Your task to perform on an android device: toggle data saver in the chrome app Image 0: 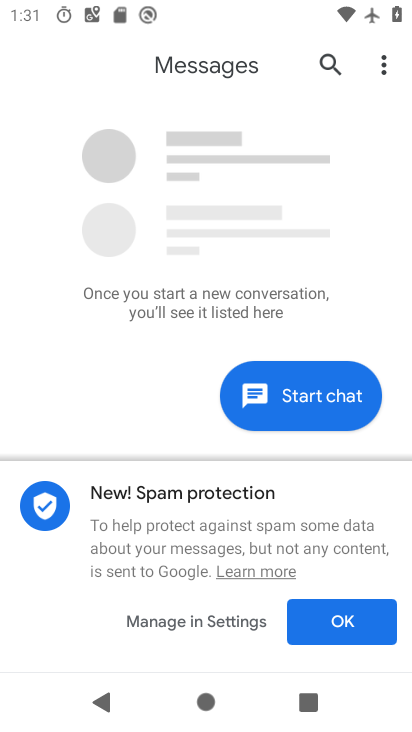
Step 0: press home button
Your task to perform on an android device: toggle data saver in the chrome app Image 1: 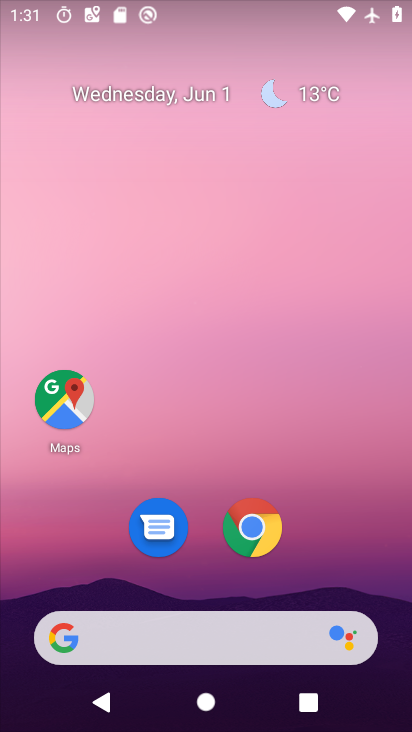
Step 1: click (258, 523)
Your task to perform on an android device: toggle data saver in the chrome app Image 2: 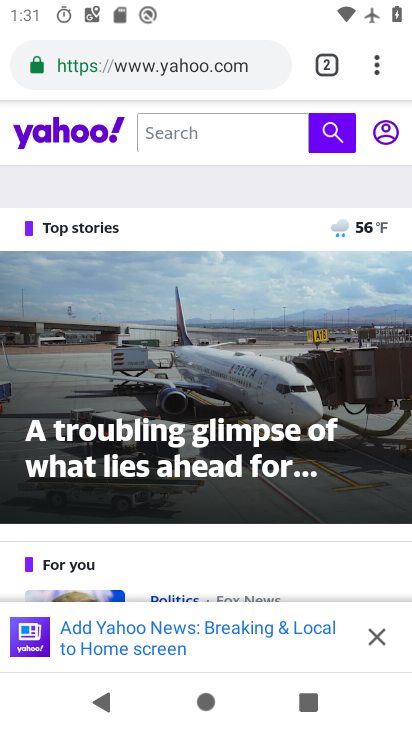
Step 2: click (377, 68)
Your task to perform on an android device: toggle data saver in the chrome app Image 3: 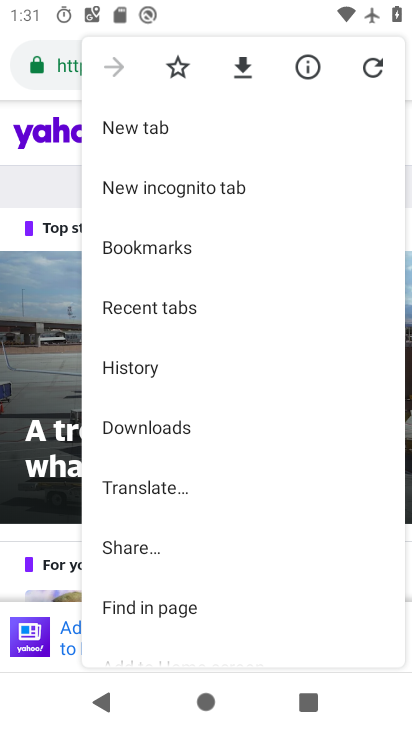
Step 3: drag from (281, 592) to (243, 208)
Your task to perform on an android device: toggle data saver in the chrome app Image 4: 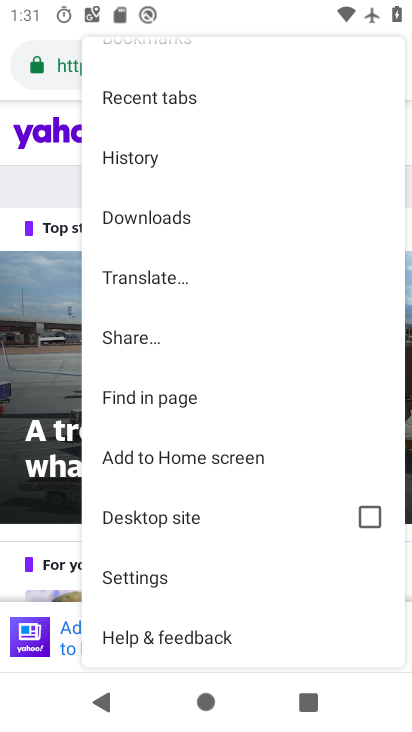
Step 4: click (148, 578)
Your task to perform on an android device: toggle data saver in the chrome app Image 5: 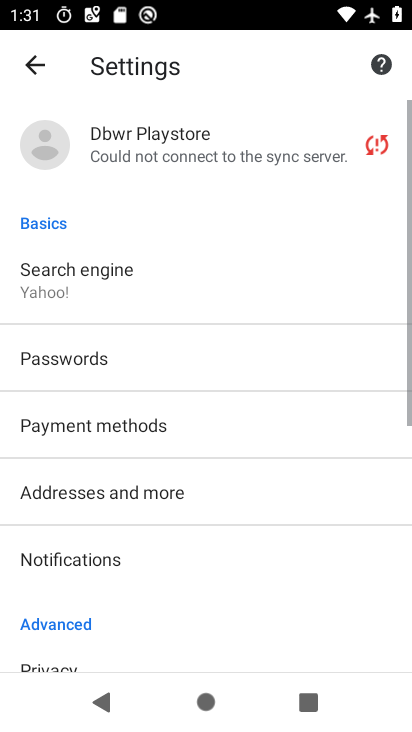
Step 5: drag from (148, 578) to (135, 152)
Your task to perform on an android device: toggle data saver in the chrome app Image 6: 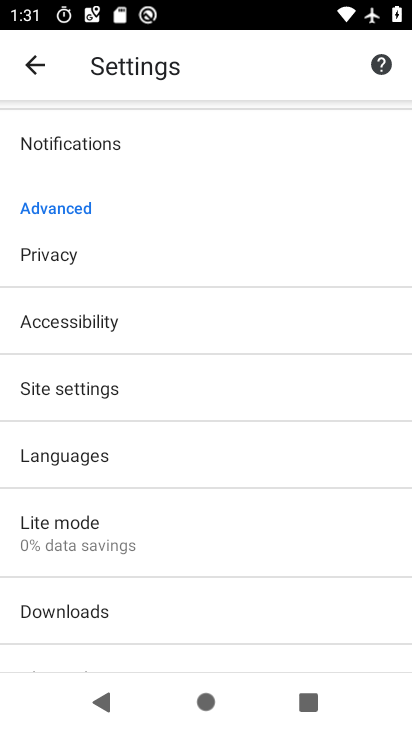
Step 6: click (71, 536)
Your task to perform on an android device: toggle data saver in the chrome app Image 7: 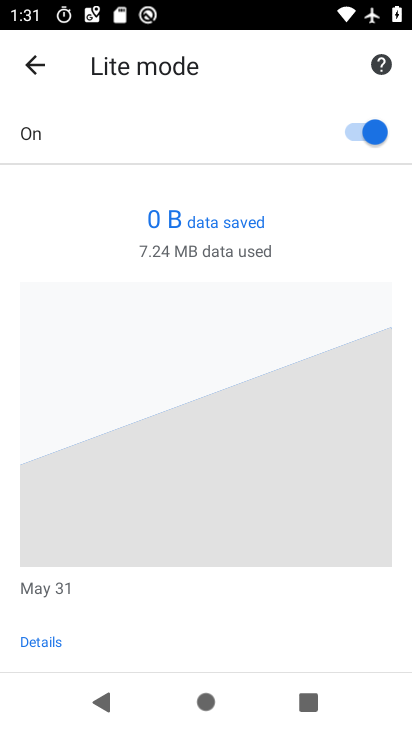
Step 7: click (367, 135)
Your task to perform on an android device: toggle data saver in the chrome app Image 8: 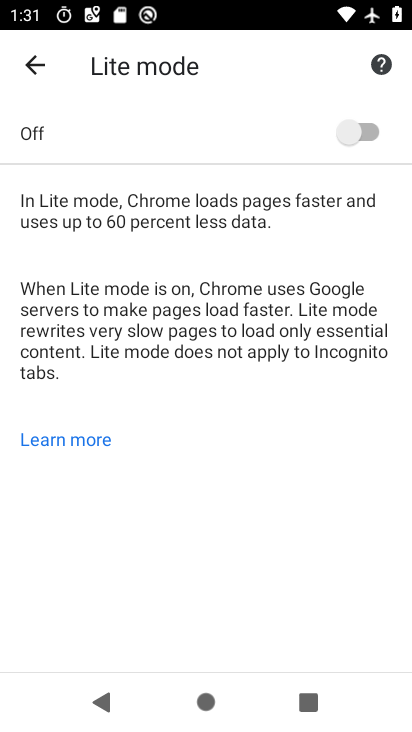
Step 8: task complete